Your task to perform on an android device: Open the Play Movies app and select the watchlist tab. Image 0: 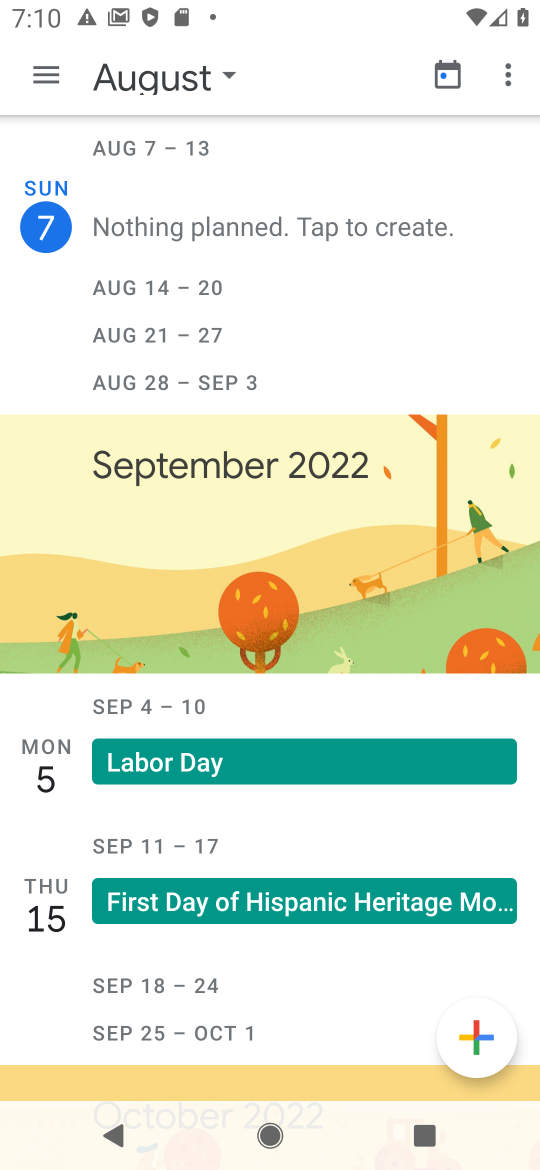
Step 0: press home button
Your task to perform on an android device: Open the Play Movies app and select the watchlist tab. Image 1: 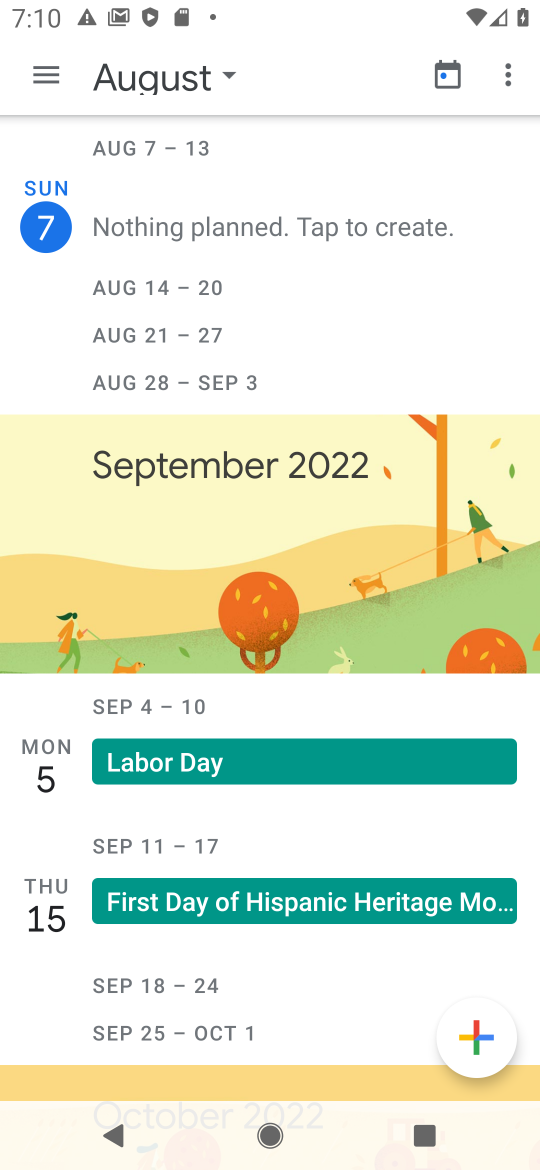
Step 1: click (255, 70)
Your task to perform on an android device: Open the Play Movies app and select the watchlist tab. Image 2: 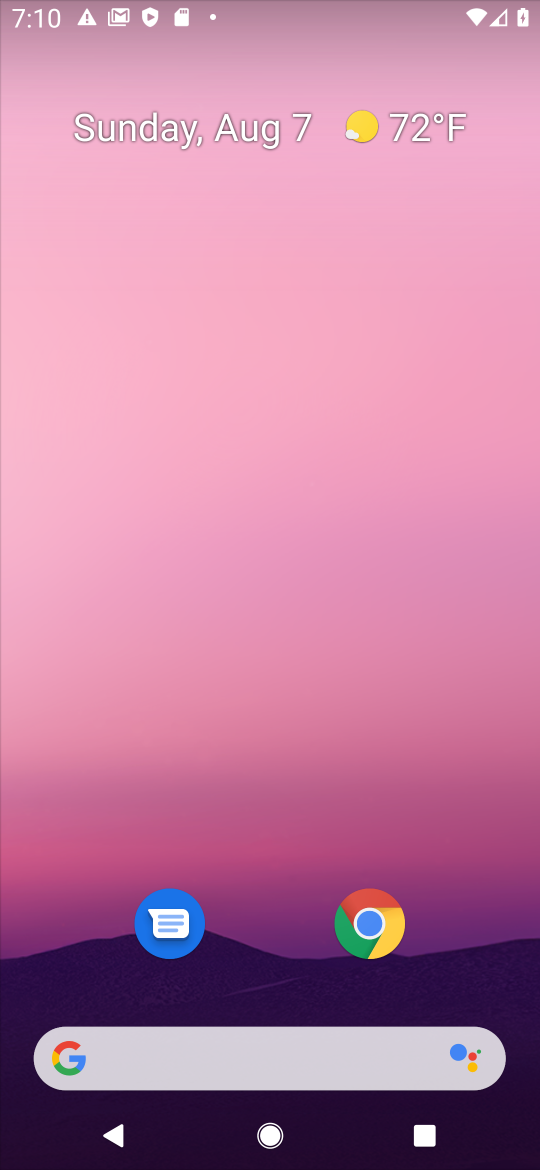
Step 2: drag from (475, 981) to (372, 34)
Your task to perform on an android device: Open the Play Movies app and select the watchlist tab. Image 3: 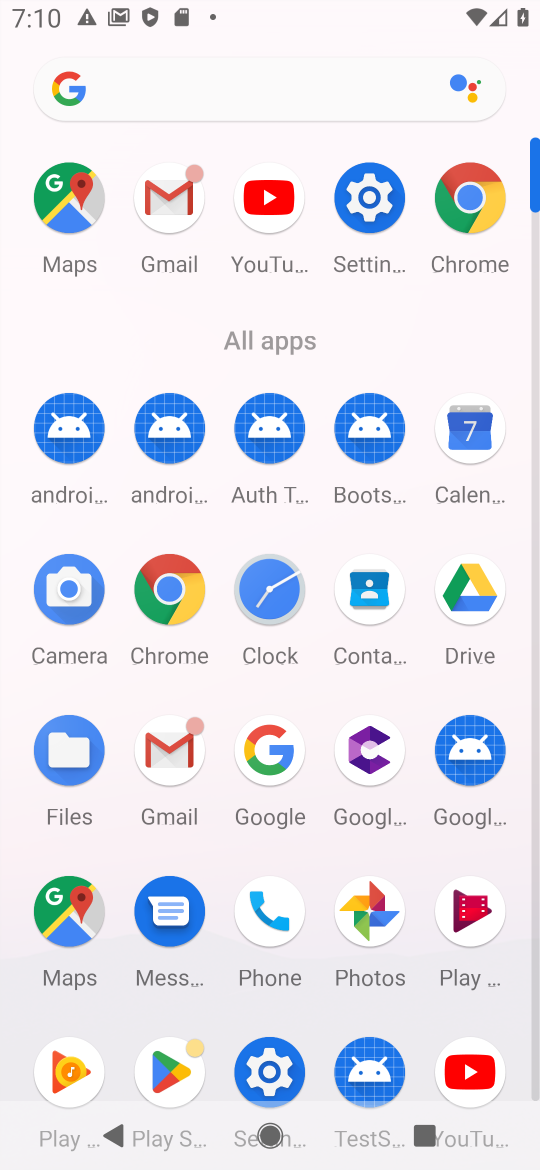
Step 3: click (464, 912)
Your task to perform on an android device: Open the Play Movies app and select the watchlist tab. Image 4: 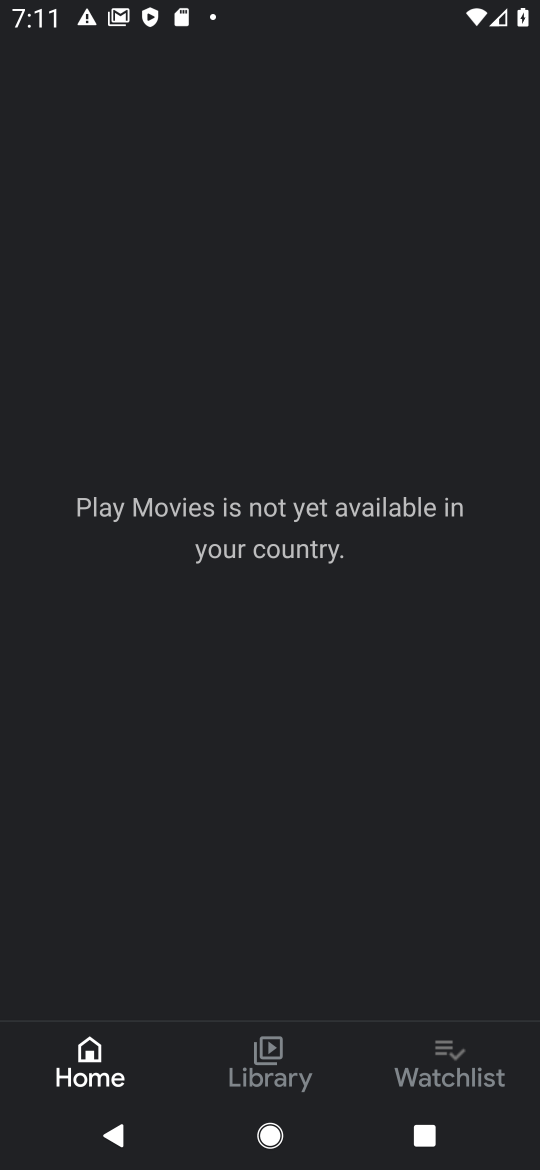
Step 4: click (451, 1059)
Your task to perform on an android device: Open the Play Movies app and select the watchlist tab. Image 5: 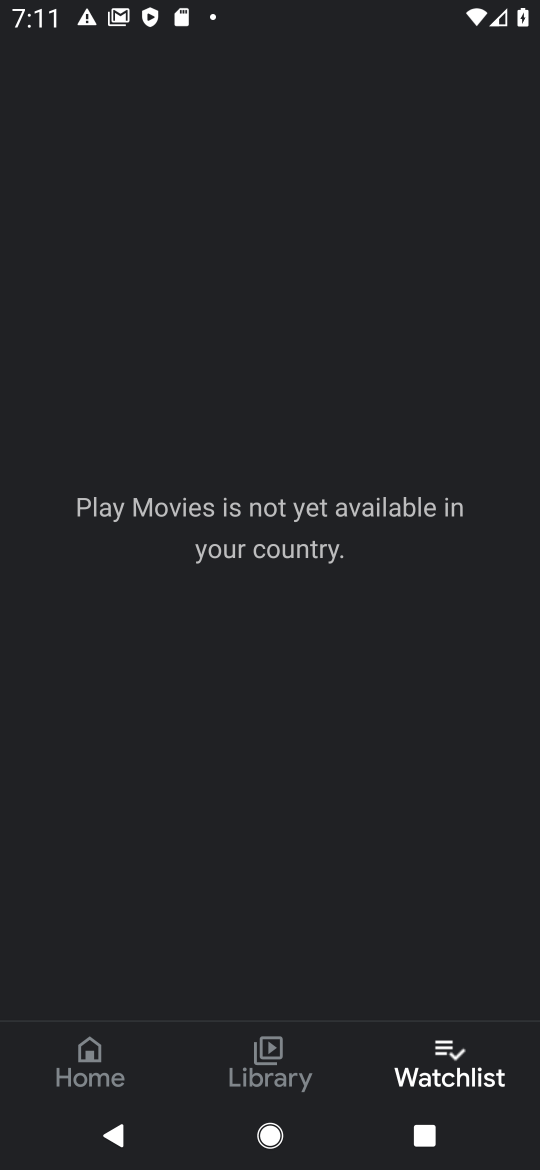
Step 5: task complete